Your task to perform on an android device: change timer sound Image 0: 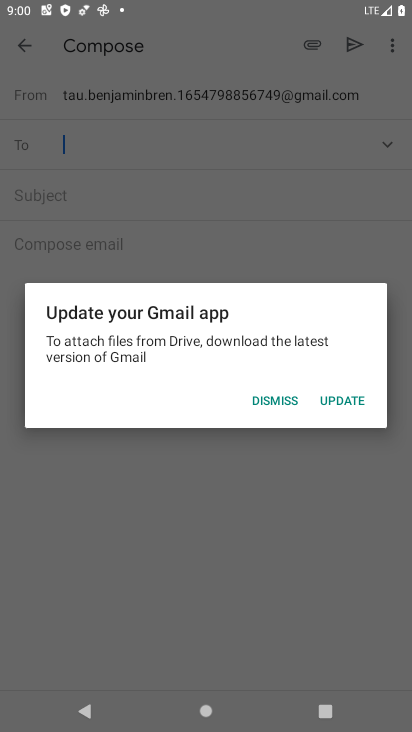
Step 0: press home button
Your task to perform on an android device: change timer sound Image 1: 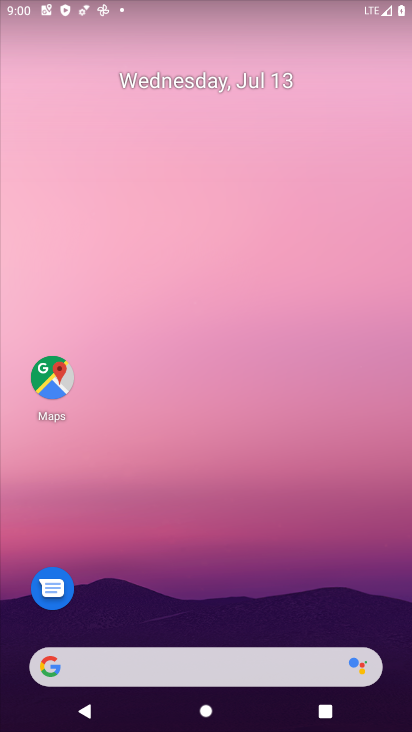
Step 1: drag from (255, 618) to (248, 196)
Your task to perform on an android device: change timer sound Image 2: 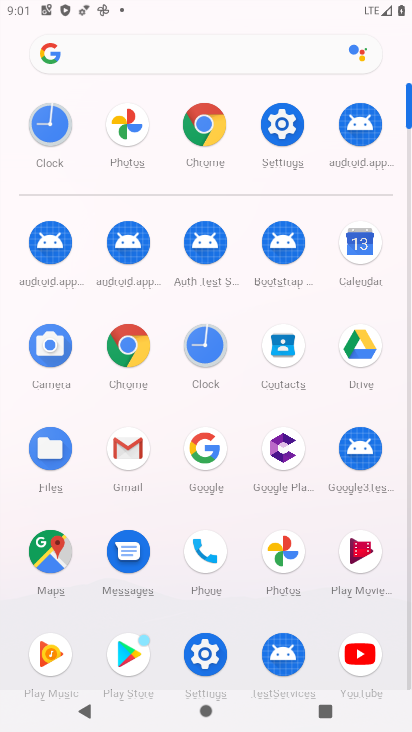
Step 2: click (63, 117)
Your task to perform on an android device: change timer sound Image 3: 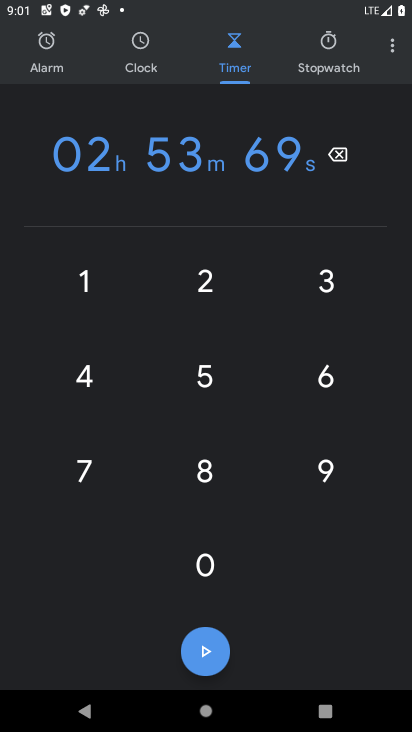
Step 3: click (389, 44)
Your task to perform on an android device: change timer sound Image 4: 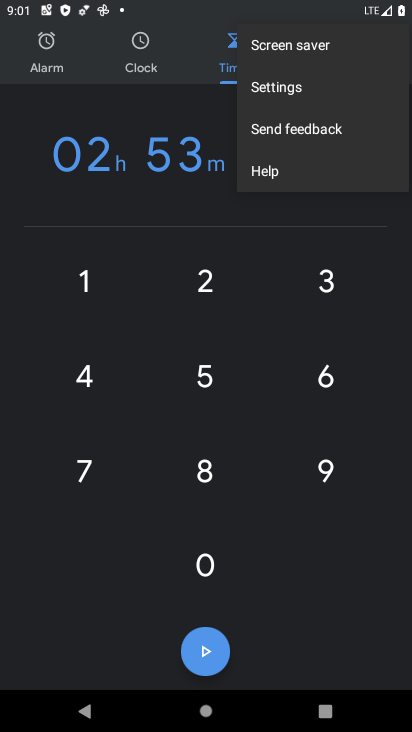
Step 4: click (299, 89)
Your task to perform on an android device: change timer sound Image 5: 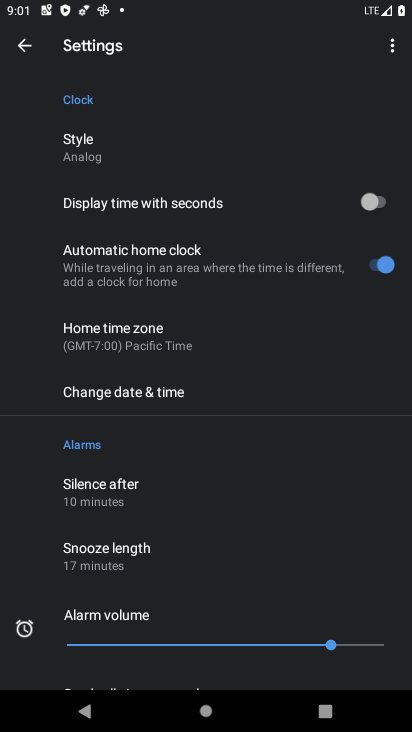
Step 5: drag from (196, 570) to (133, 6)
Your task to perform on an android device: change timer sound Image 6: 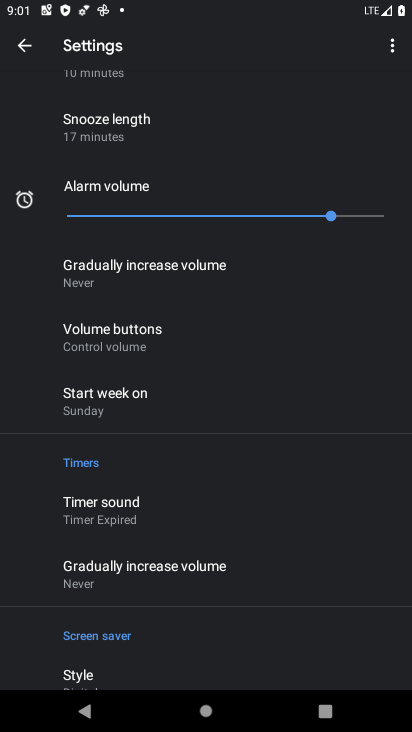
Step 6: click (142, 514)
Your task to perform on an android device: change timer sound Image 7: 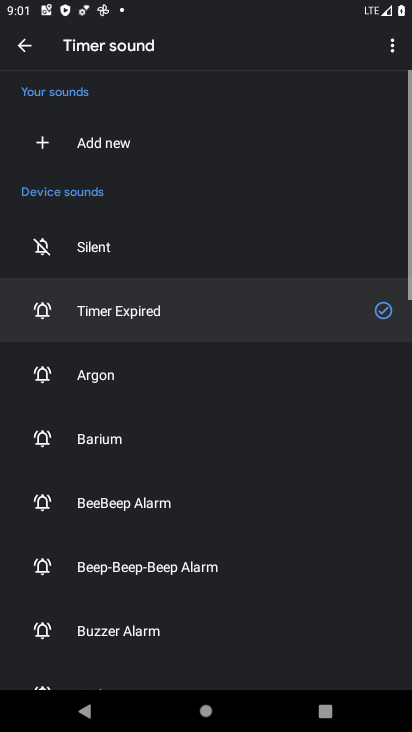
Step 7: click (197, 571)
Your task to perform on an android device: change timer sound Image 8: 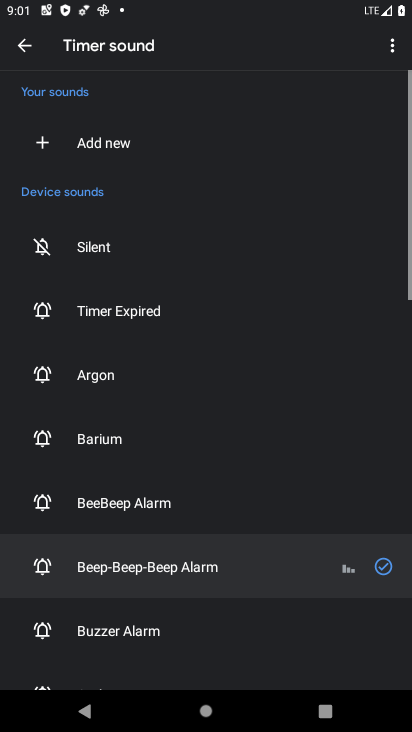
Step 8: task complete